Your task to perform on an android device: Set the phone to "Do not disturb". Image 0: 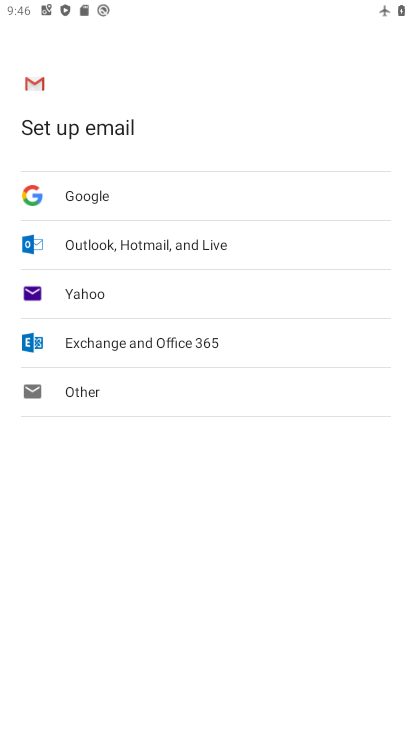
Step 0: press home button
Your task to perform on an android device: Set the phone to "Do not disturb". Image 1: 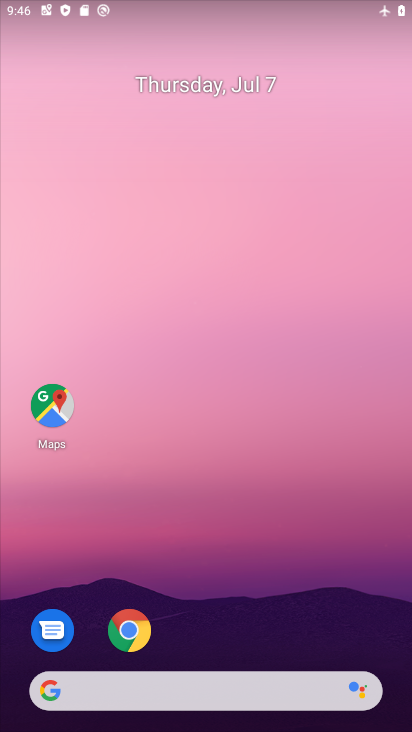
Step 1: drag from (224, 593) to (224, 91)
Your task to perform on an android device: Set the phone to "Do not disturb". Image 2: 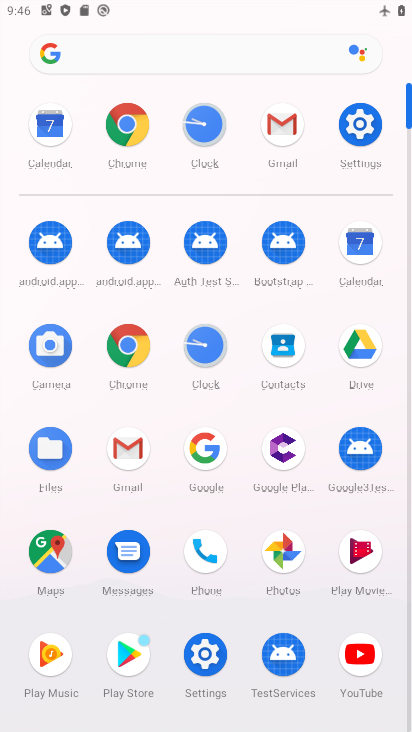
Step 2: click (372, 138)
Your task to perform on an android device: Set the phone to "Do not disturb". Image 3: 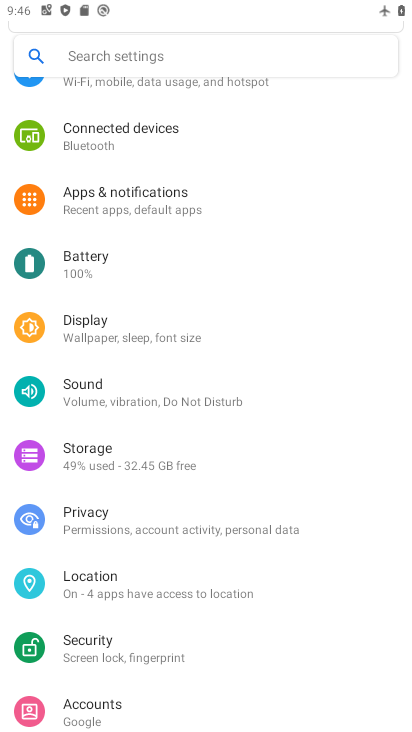
Step 3: click (115, 408)
Your task to perform on an android device: Set the phone to "Do not disturb". Image 4: 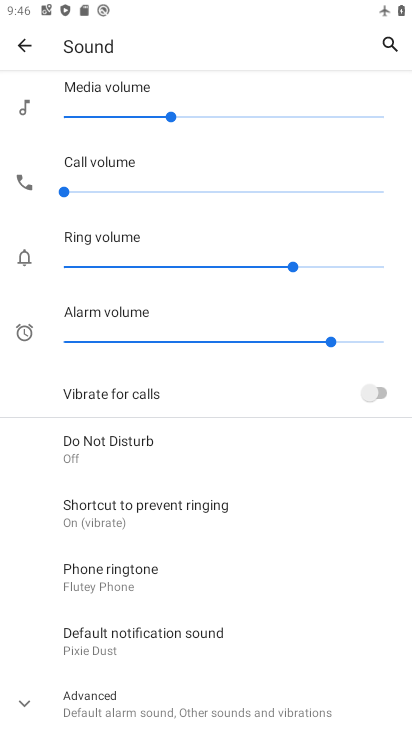
Step 4: click (109, 436)
Your task to perform on an android device: Set the phone to "Do not disturb". Image 5: 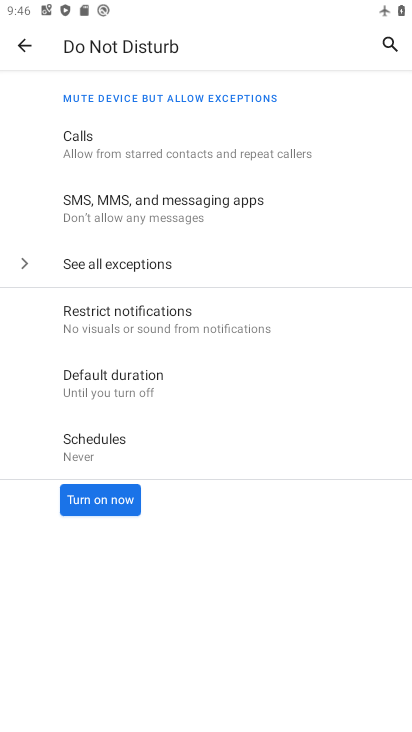
Step 5: click (118, 502)
Your task to perform on an android device: Set the phone to "Do not disturb". Image 6: 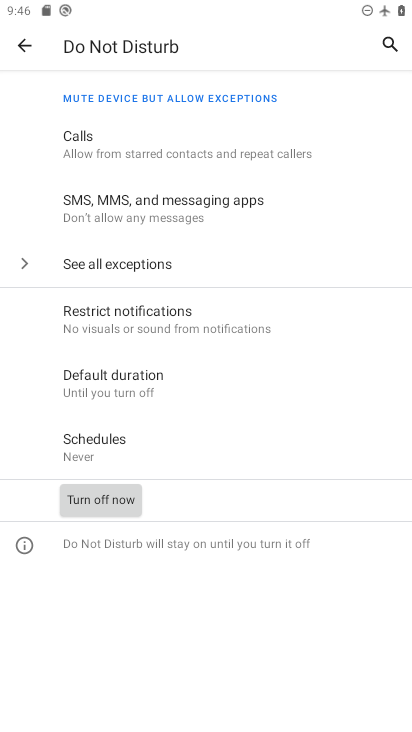
Step 6: task complete